Your task to perform on an android device: toggle notifications settings in the gmail app Image 0: 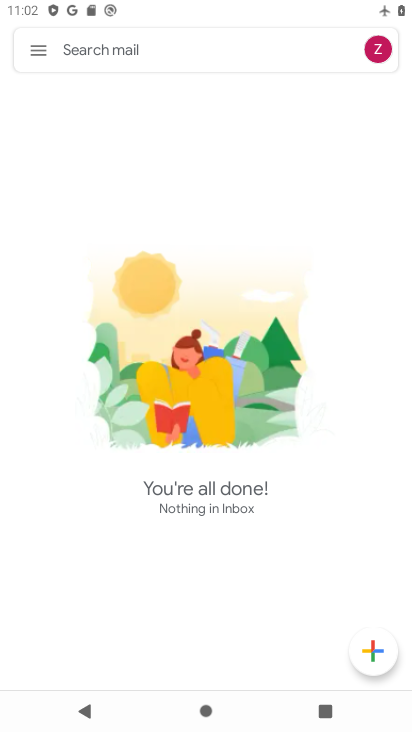
Step 0: press home button
Your task to perform on an android device: toggle notifications settings in the gmail app Image 1: 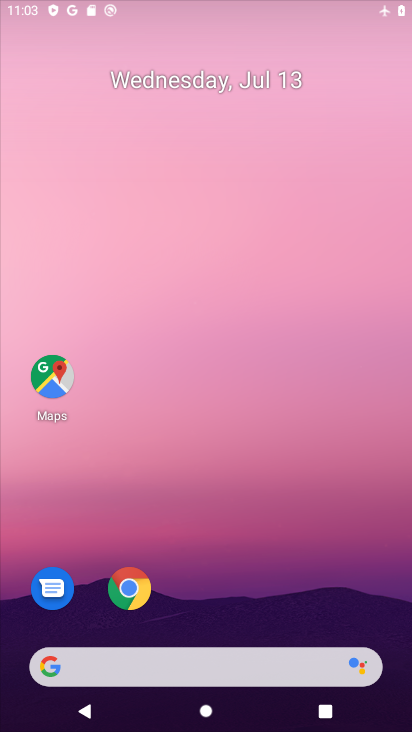
Step 1: drag from (217, 607) to (253, 109)
Your task to perform on an android device: toggle notifications settings in the gmail app Image 2: 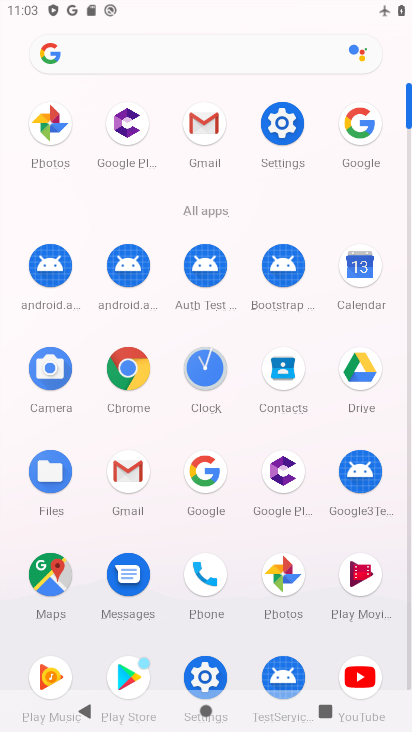
Step 2: click (198, 127)
Your task to perform on an android device: toggle notifications settings in the gmail app Image 3: 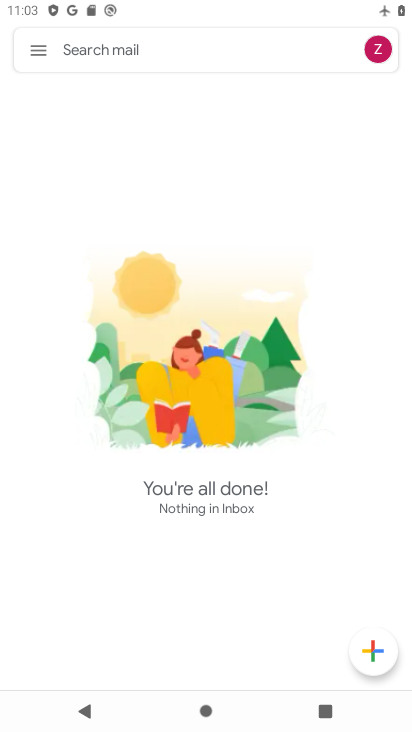
Step 3: click (40, 49)
Your task to perform on an android device: toggle notifications settings in the gmail app Image 4: 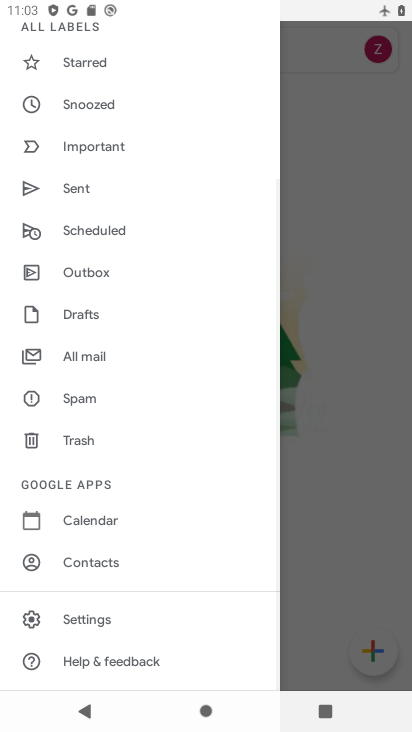
Step 4: click (96, 618)
Your task to perform on an android device: toggle notifications settings in the gmail app Image 5: 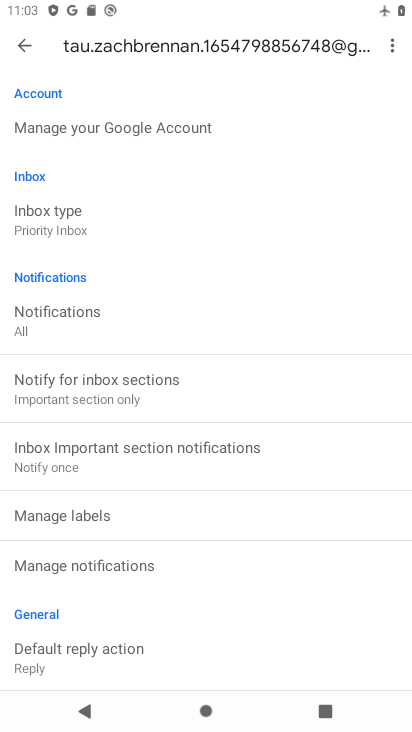
Step 5: click (90, 316)
Your task to perform on an android device: toggle notifications settings in the gmail app Image 6: 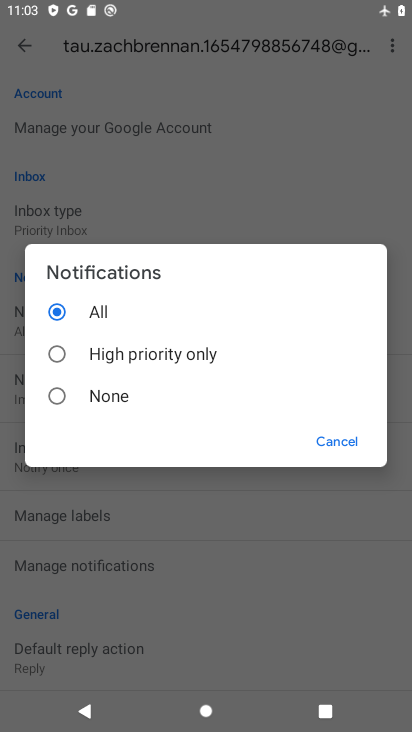
Step 6: click (59, 388)
Your task to perform on an android device: toggle notifications settings in the gmail app Image 7: 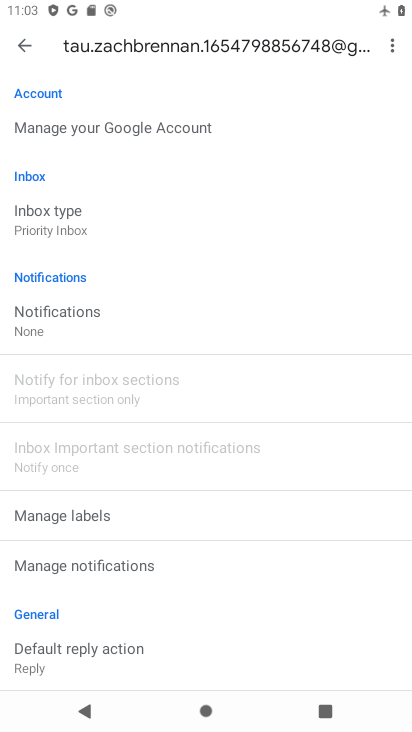
Step 7: task complete